Your task to perform on an android device: Open the map Image 0: 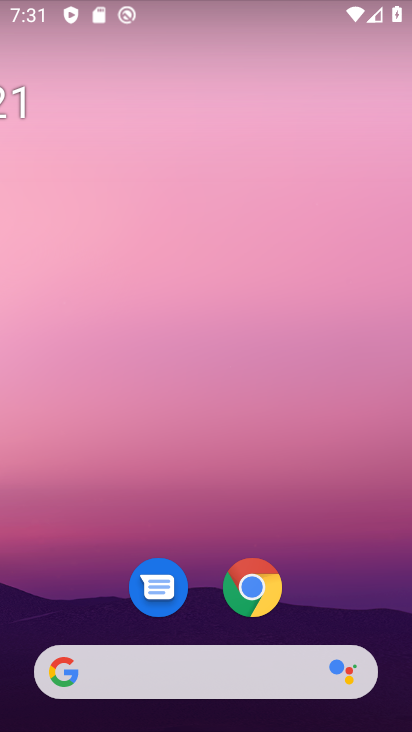
Step 0: click (251, 585)
Your task to perform on an android device: Open the map Image 1: 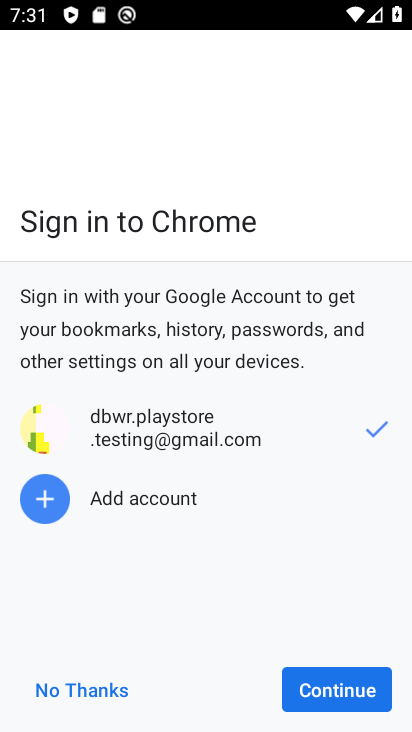
Step 1: press home button
Your task to perform on an android device: Open the map Image 2: 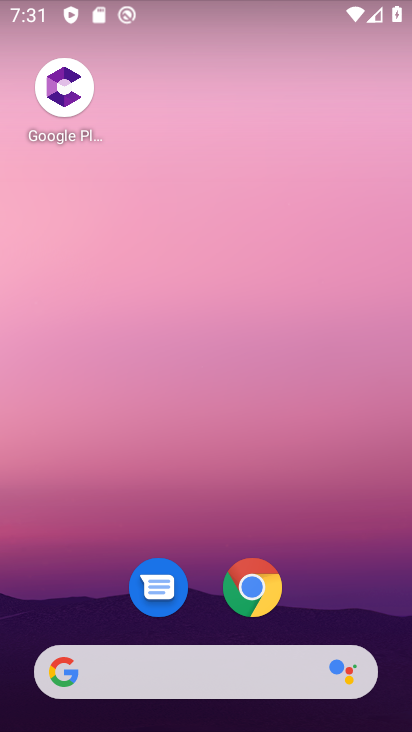
Step 2: drag from (355, 595) to (335, 108)
Your task to perform on an android device: Open the map Image 3: 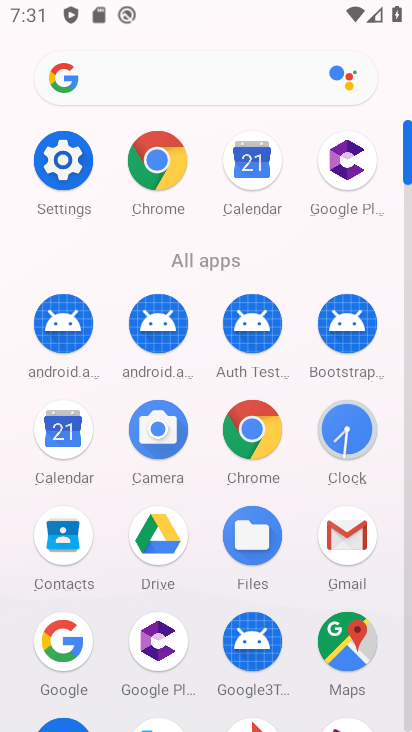
Step 3: click (340, 654)
Your task to perform on an android device: Open the map Image 4: 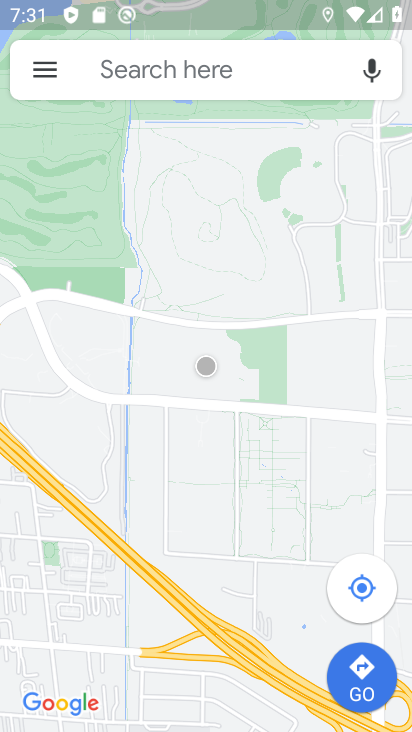
Step 4: task complete